Your task to perform on an android device: Open Chrome and go to settings Image 0: 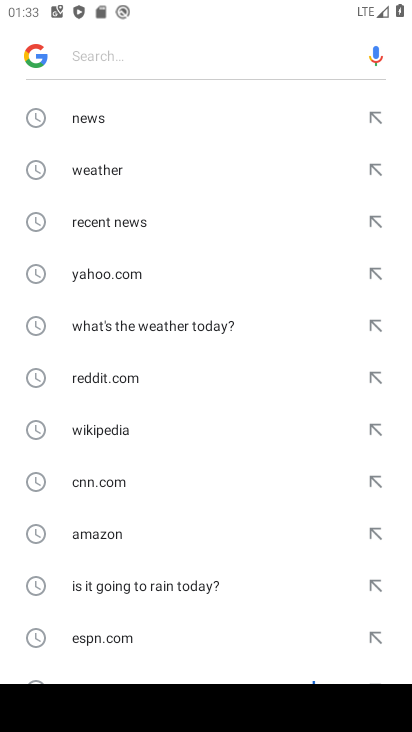
Step 0: press home button
Your task to perform on an android device: Open Chrome and go to settings Image 1: 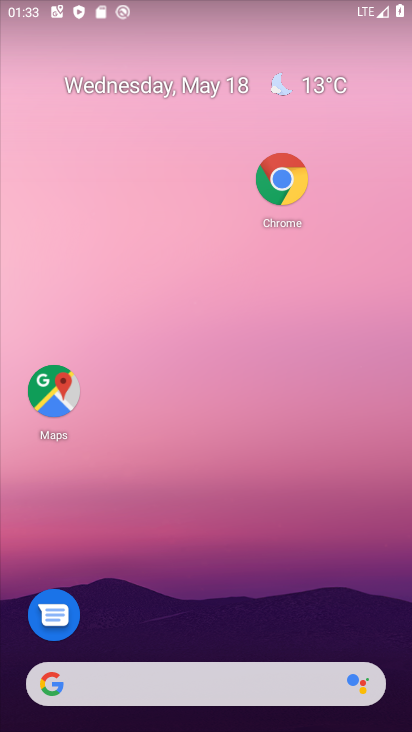
Step 1: click (275, 191)
Your task to perform on an android device: Open Chrome and go to settings Image 2: 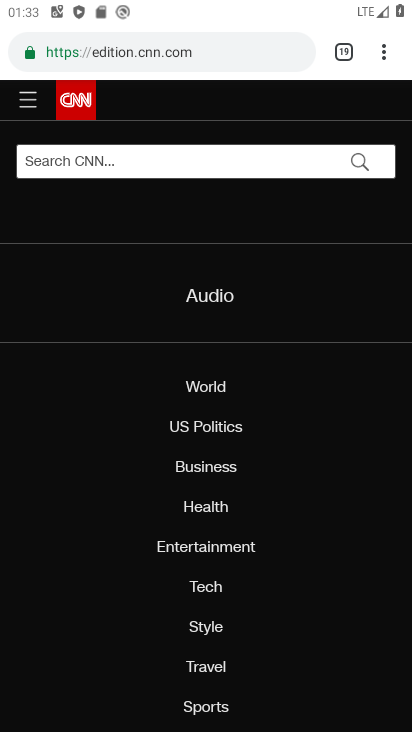
Step 2: task complete